Your task to perform on an android device: Search for the best rated phone case for the iPhone 8. Image 0: 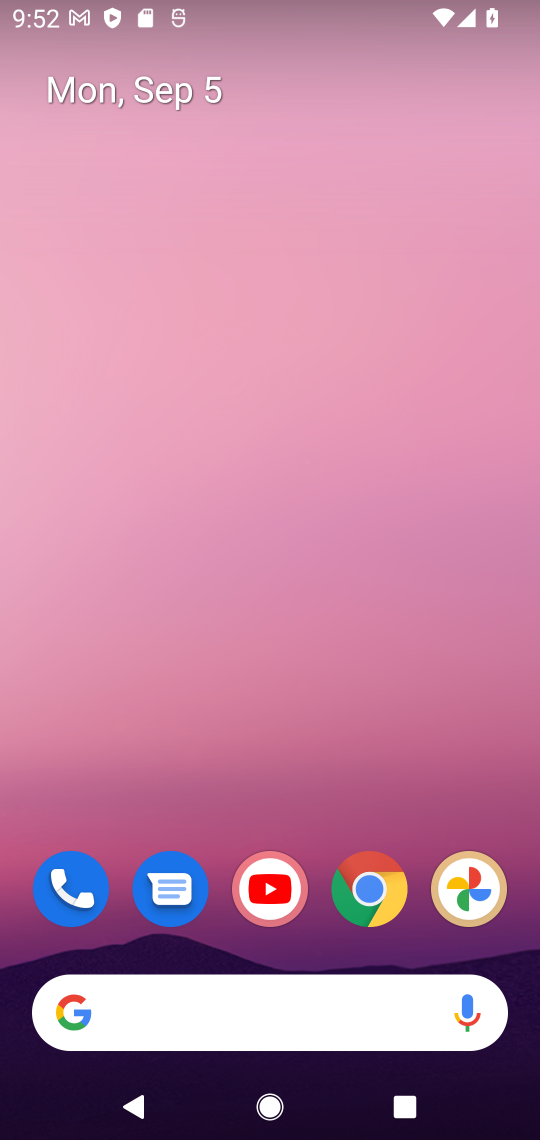
Step 0: click (278, 1009)
Your task to perform on an android device: Search for the best rated phone case for the iPhone 8. Image 1: 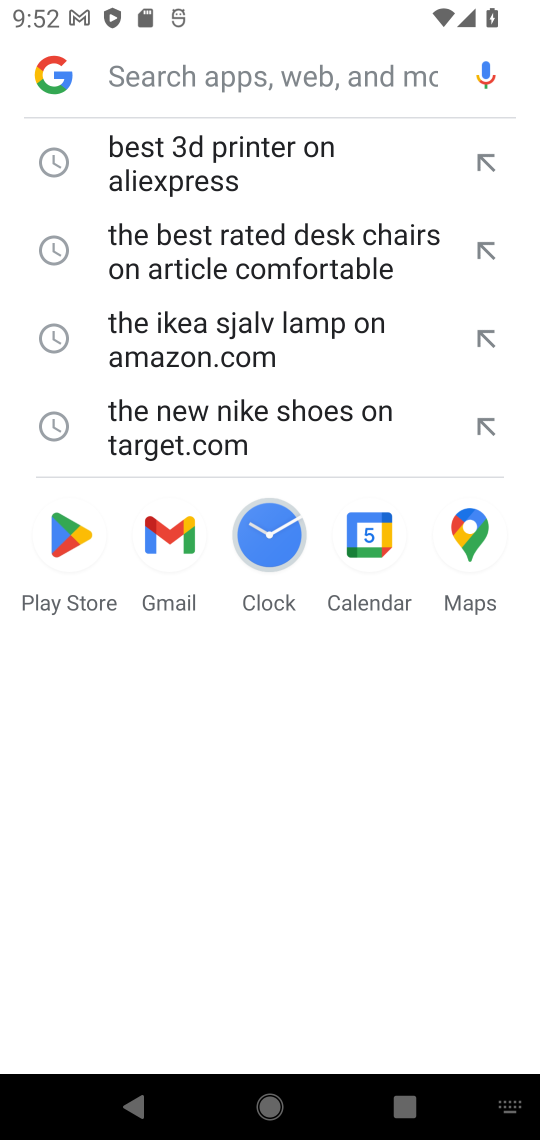
Step 1: type "the best rated phone case for the iPhone 8"
Your task to perform on an android device: Search for the best rated phone case for the iPhone 8. Image 2: 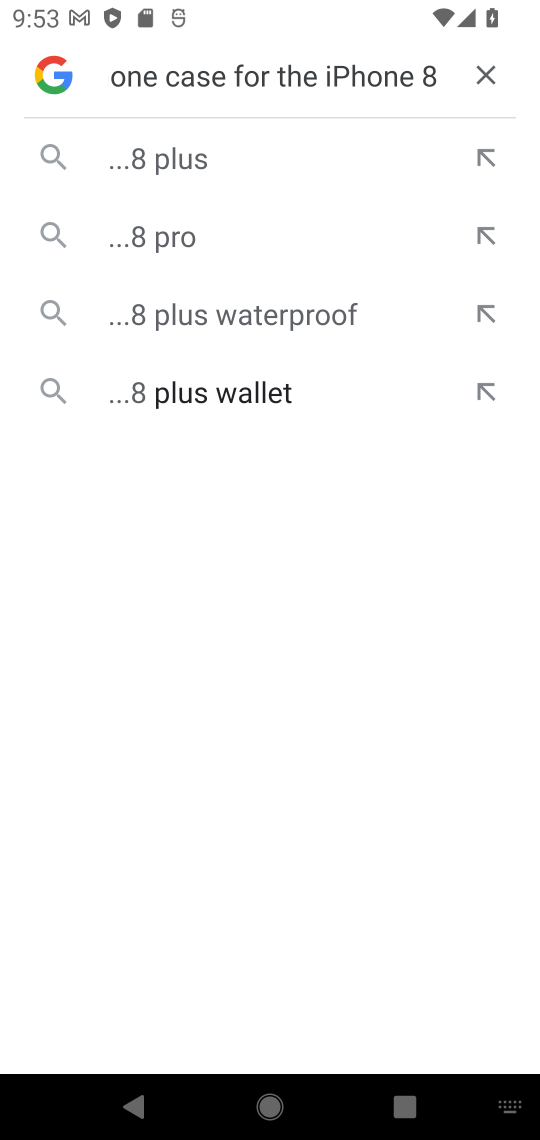
Step 2: click (195, 157)
Your task to perform on an android device: Search for the best rated phone case for the iPhone 8. Image 3: 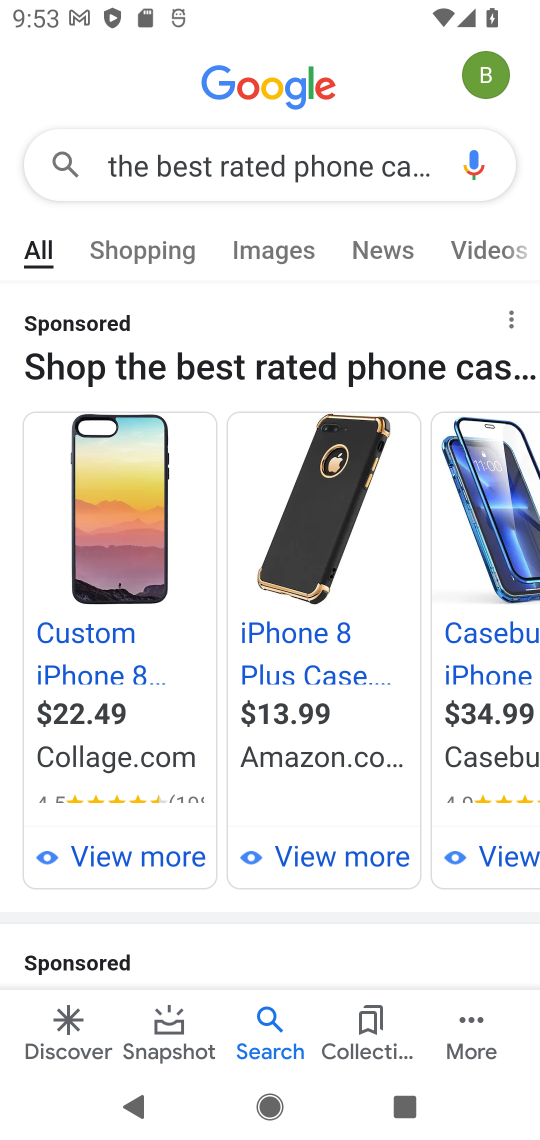
Step 3: task complete